Your task to perform on an android device: change text size in settings app Image 0: 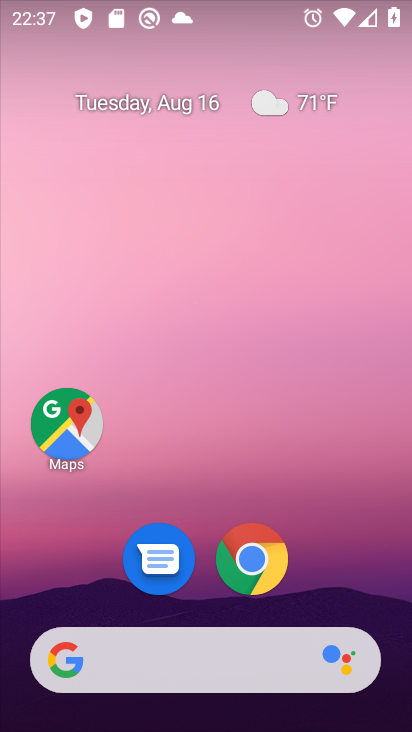
Step 0: drag from (183, 671) to (276, 148)
Your task to perform on an android device: change text size in settings app Image 1: 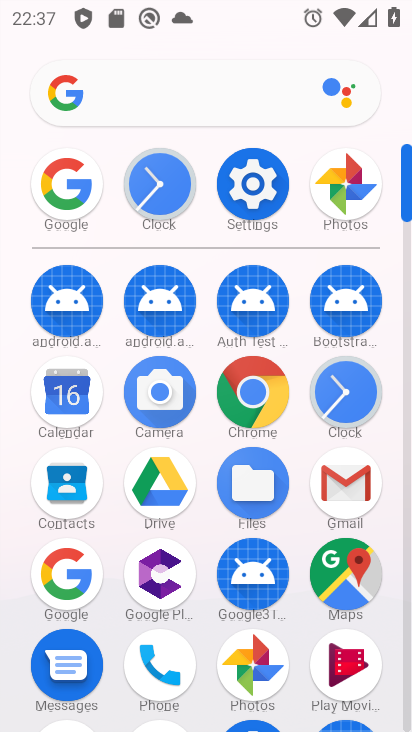
Step 1: click (254, 184)
Your task to perform on an android device: change text size in settings app Image 2: 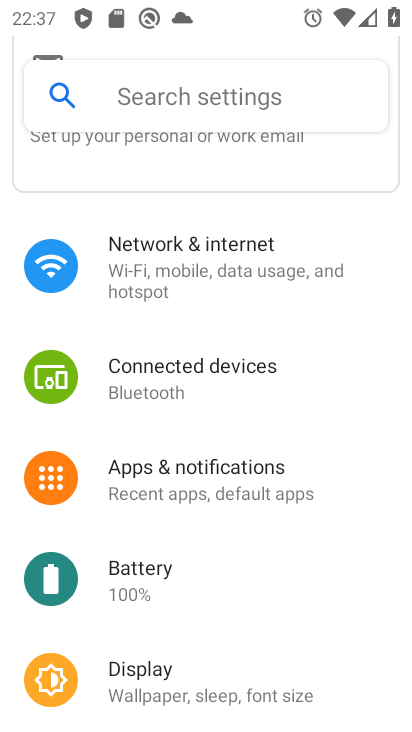
Step 2: drag from (242, 541) to (295, 393)
Your task to perform on an android device: change text size in settings app Image 3: 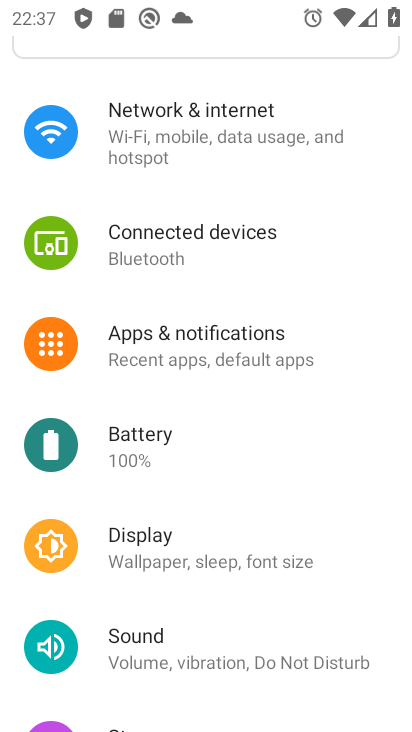
Step 3: drag from (204, 598) to (260, 478)
Your task to perform on an android device: change text size in settings app Image 4: 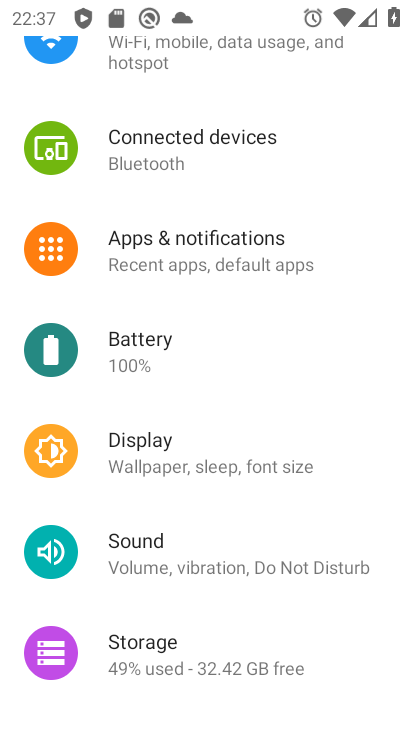
Step 4: drag from (178, 510) to (240, 412)
Your task to perform on an android device: change text size in settings app Image 5: 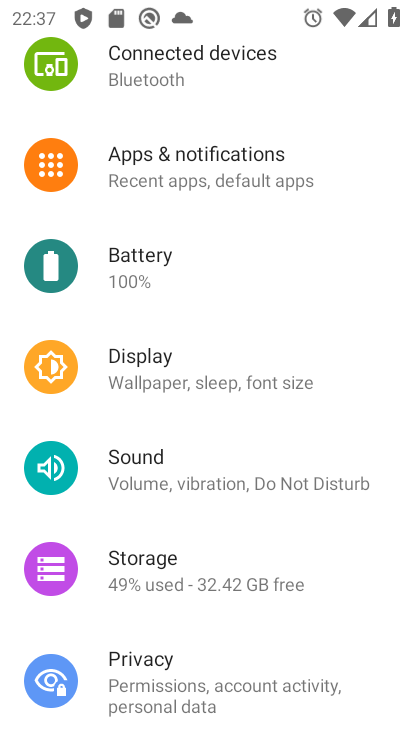
Step 5: drag from (198, 595) to (291, 463)
Your task to perform on an android device: change text size in settings app Image 6: 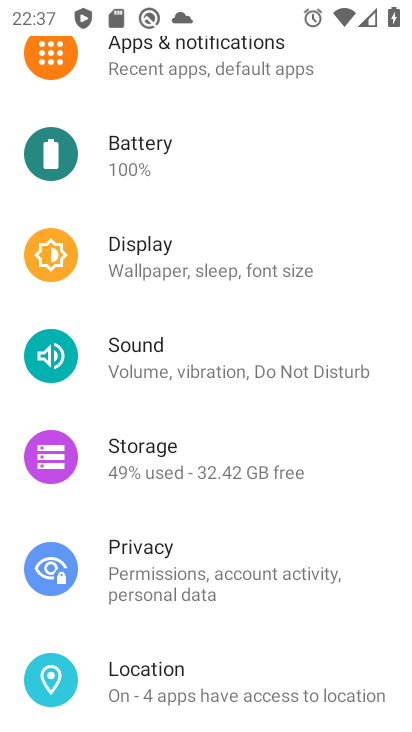
Step 6: drag from (235, 638) to (302, 529)
Your task to perform on an android device: change text size in settings app Image 7: 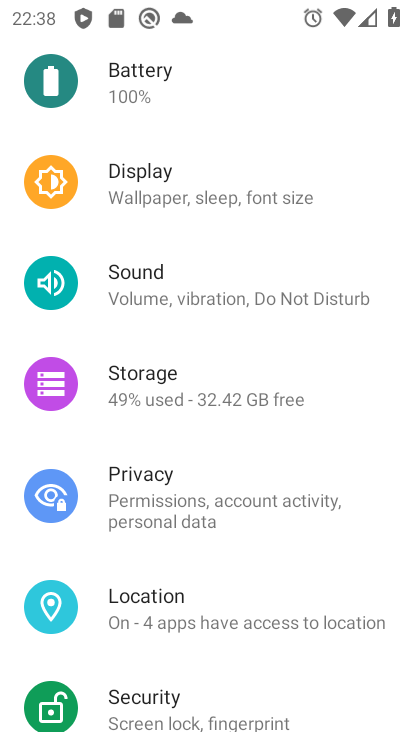
Step 7: drag from (225, 664) to (313, 540)
Your task to perform on an android device: change text size in settings app Image 8: 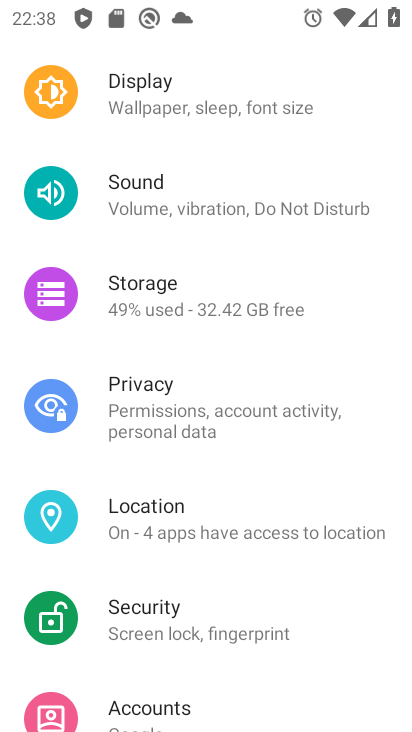
Step 8: drag from (237, 617) to (284, 486)
Your task to perform on an android device: change text size in settings app Image 9: 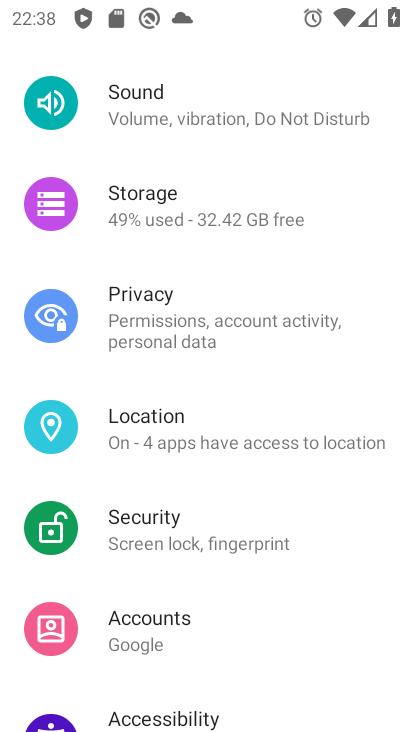
Step 9: drag from (233, 654) to (247, 488)
Your task to perform on an android device: change text size in settings app Image 10: 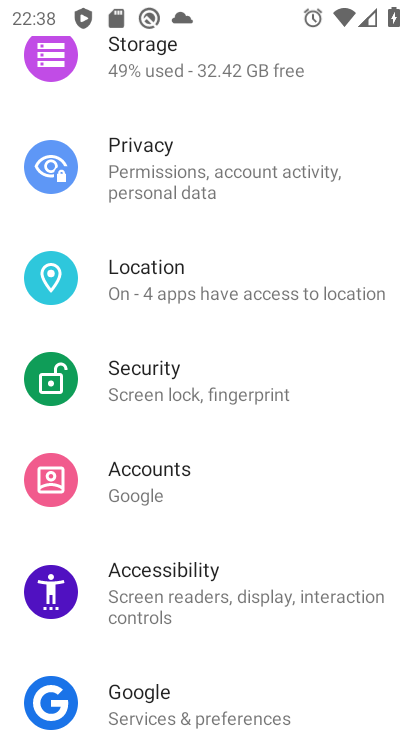
Step 10: click (181, 579)
Your task to perform on an android device: change text size in settings app Image 11: 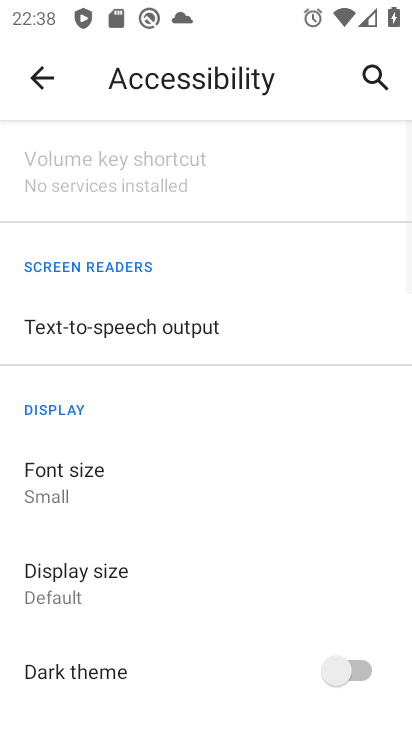
Step 11: click (84, 481)
Your task to perform on an android device: change text size in settings app Image 12: 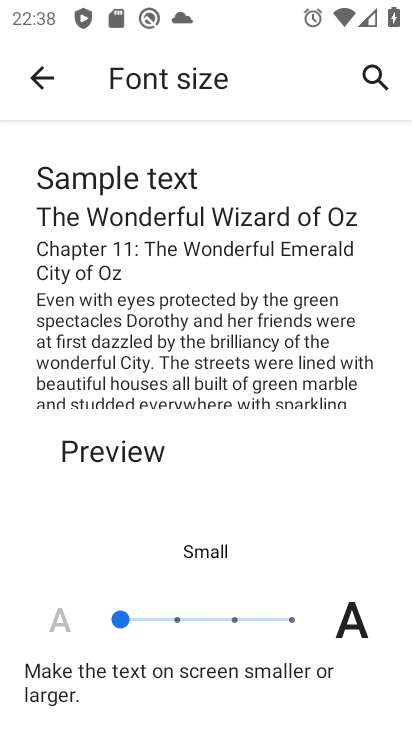
Step 12: click (178, 618)
Your task to perform on an android device: change text size in settings app Image 13: 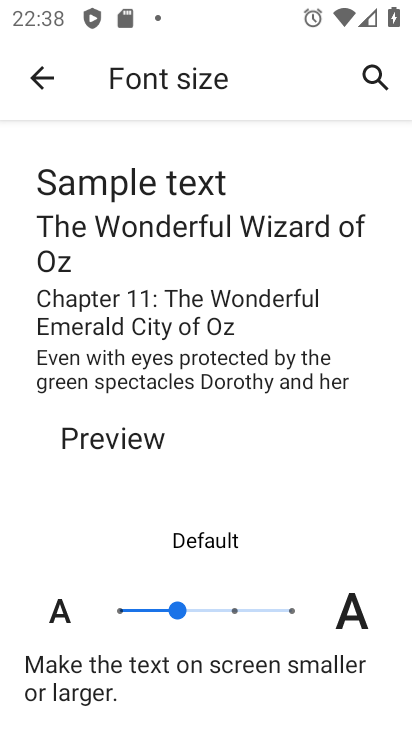
Step 13: task complete